Your task to perform on an android device: change the upload size in google photos Image 0: 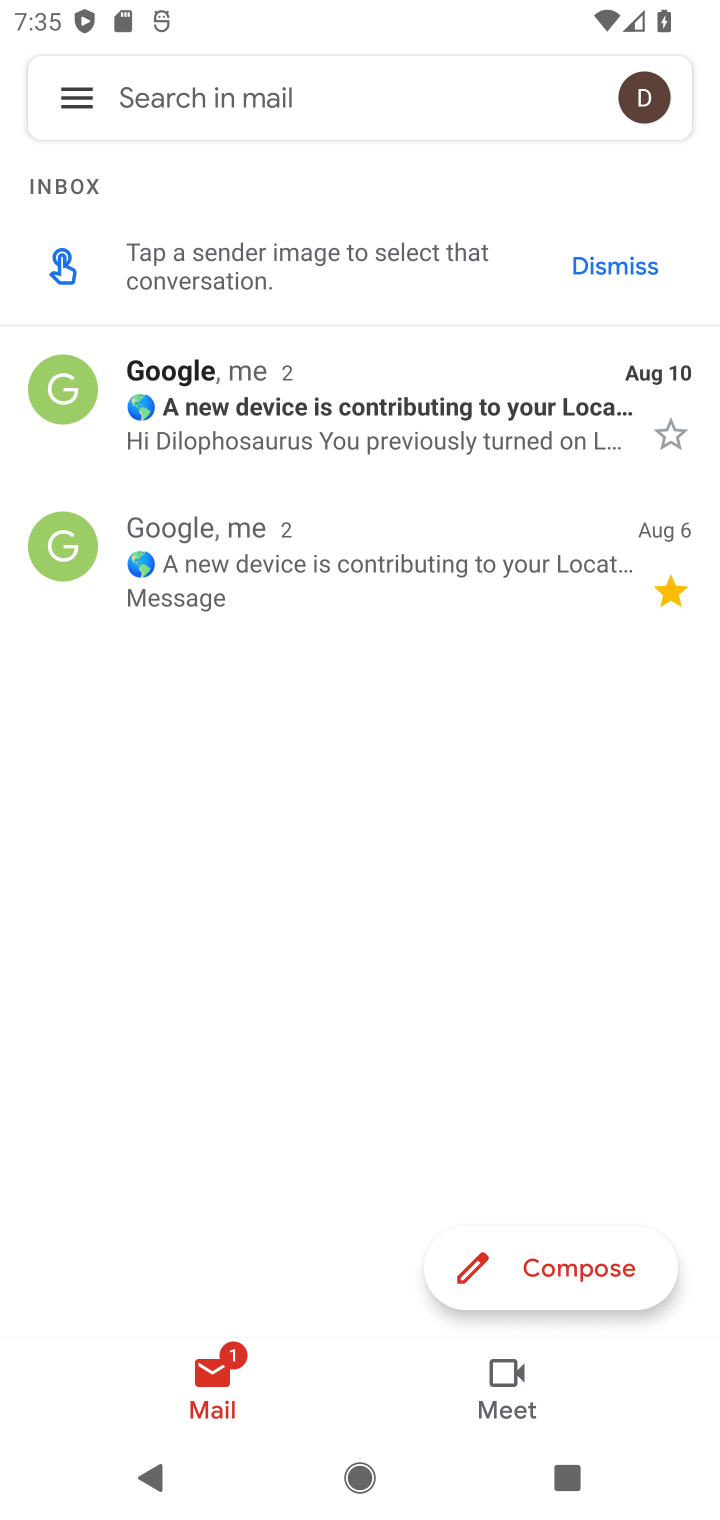
Step 0: task complete